Your task to perform on an android device: Open Chrome and go to the settings page Image 0: 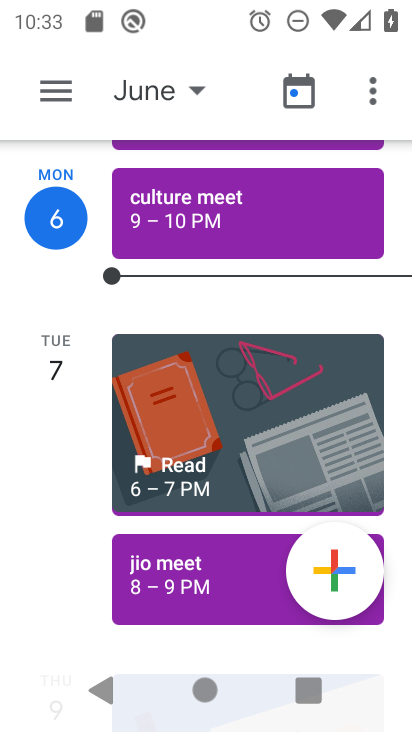
Step 0: press home button
Your task to perform on an android device: Open Chrome and go to the settings page Image 1: 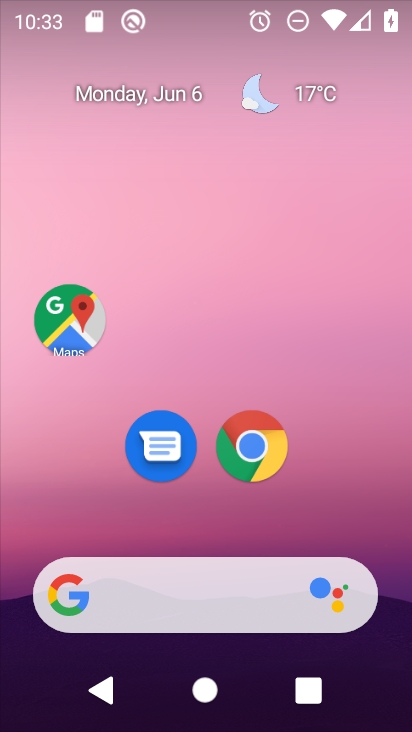
Step 1: click (257, 441)
Your task to perform on an android device: Open Chrome and go to the settings page Image 2: 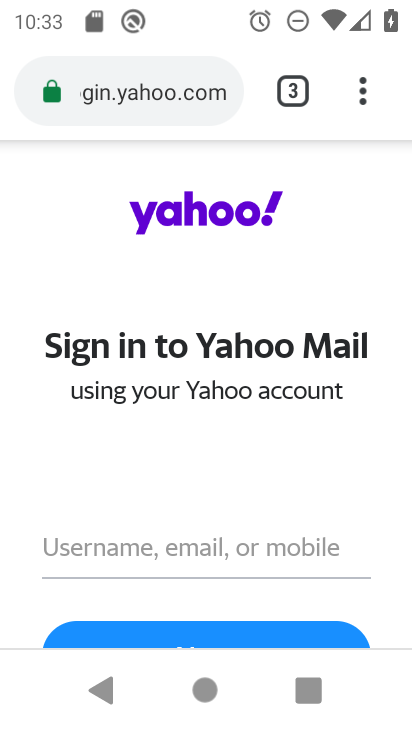
Step 2: click (373, 90)
Your task to perform on an android device: Open Chrome and go to the settings page Image 3: 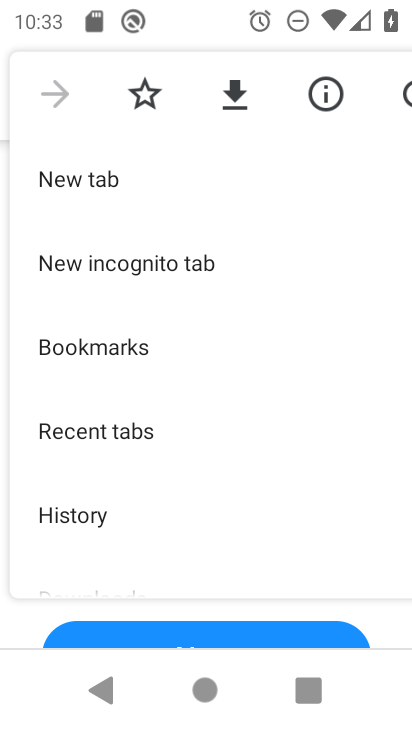
Step 3: drag from (307, 488) to (305, 243)
Your task to perform on an android device: Open Chrome and go to the settings page Image 4: 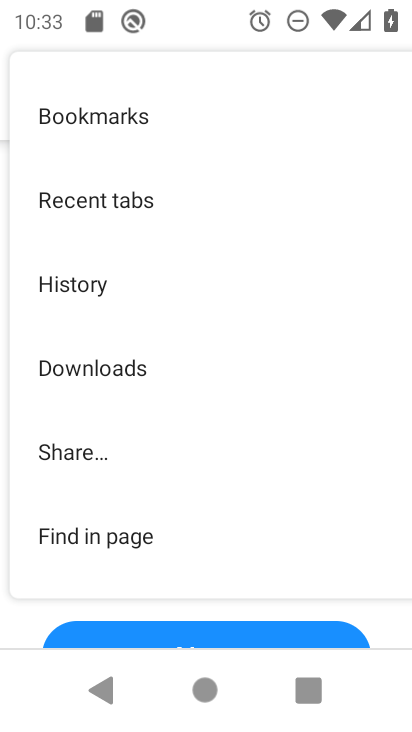
Step 4: drag from (74, 521) to (147, 144)
Your task to perform on an android device: Open Chrome and go to the settings page Image 5: 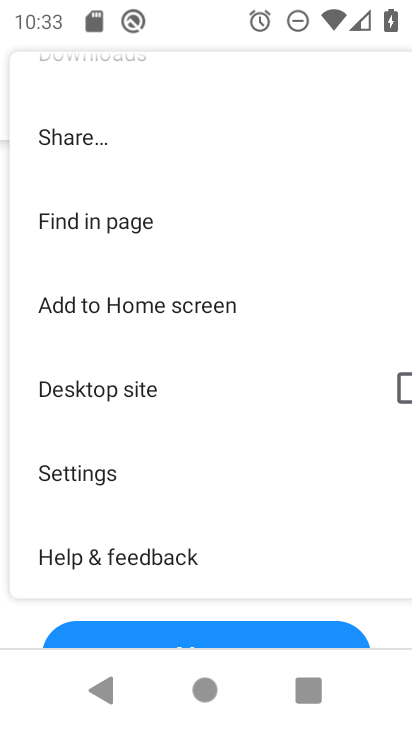
Step 5: click (122, 483)
Your task to perform on an android device: Open Chrome and go to the settings page Image 6: 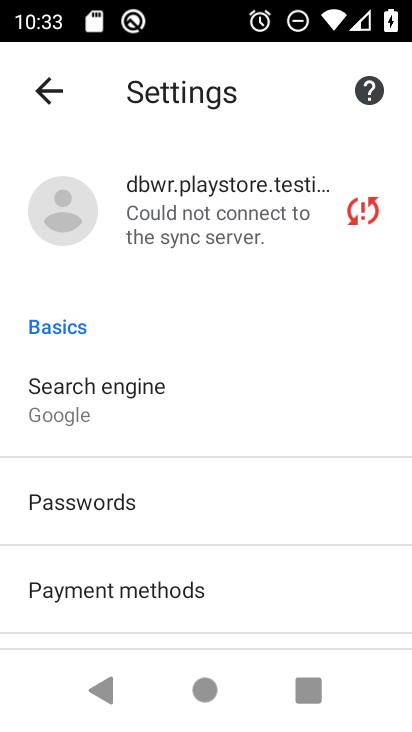
Step 6: task complete